Your task to perform on an android device: choose inbox layout in the gmail app Image 0: 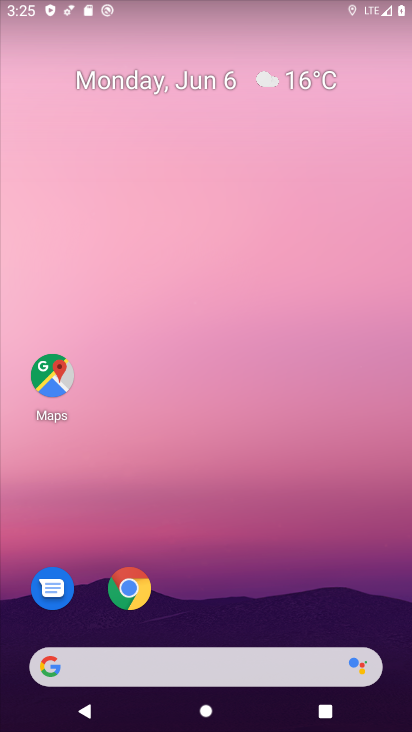
Step 0: click (137, 594)
Your task to perform on an android device: choose inbox layout in the gmail app Image 1: 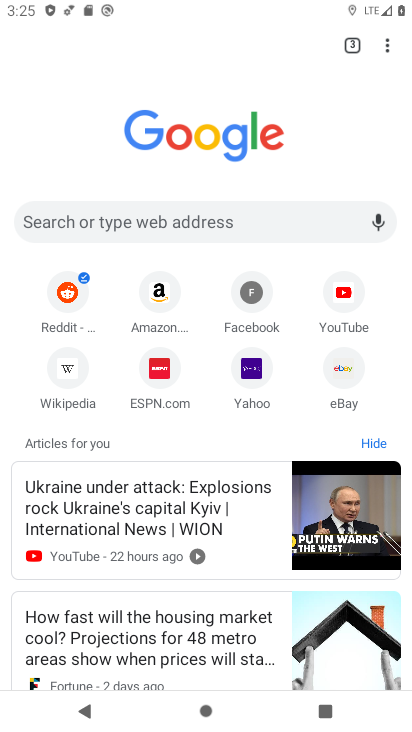
Step 1: press home button
Your task to perform on an android device: choose inbox layout in the gmail app Image 2: 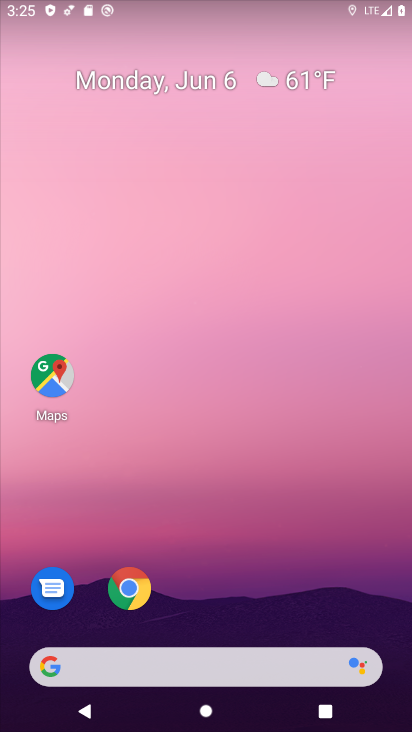
Step 2: drag from (185, 460) to (151, 321)
Your task to perform on an android device: choose inbox layout in the gmail app Image 3: 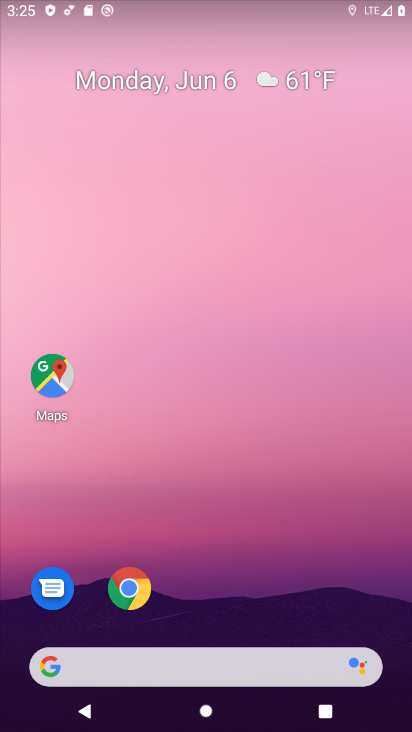
Step 3: drag from (252, 617) to (231, 126)
Your task to perform on an android device: choose inbox layout in the gmail app Image 4: 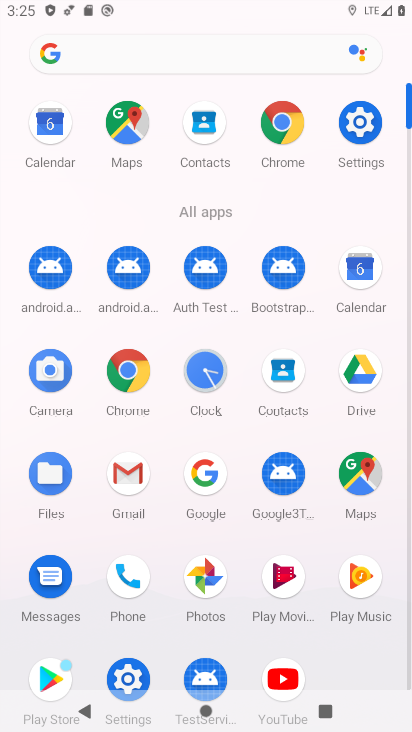
Step 4: click (137, 485)
Your task to perform on an android device: choose inbox layout in the gmail app Image 5: 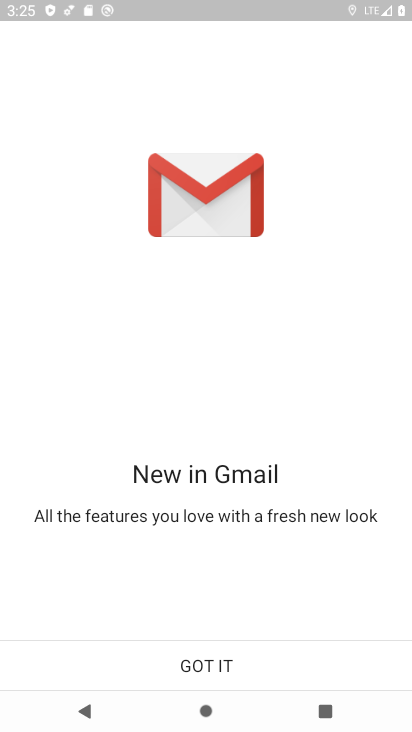
Step 5: click (218, 668)
Your task to perform on an android device: choose inbox layout in the gmail app Image 6: 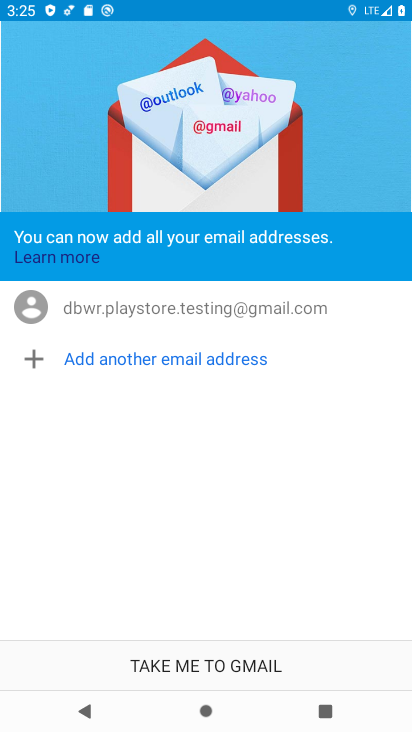
Step 6: click (218, 668)
Your task to perform on an android device: choose inbox layout in the gmail app Image 7: 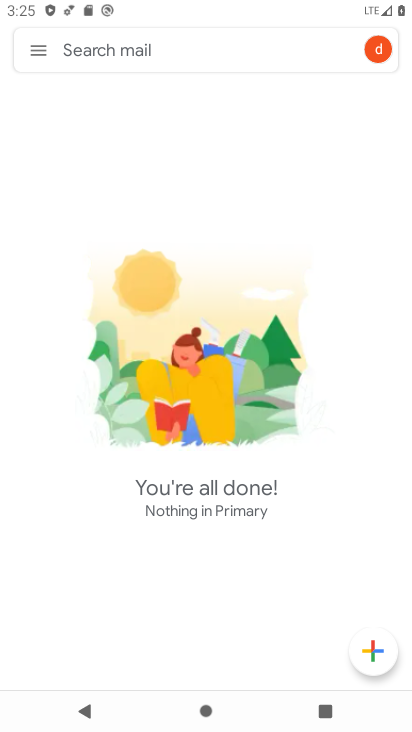
Step 7: click (37, 51)
Your task to perform on an android device: choose inbox layout in the gmail app Image 8: 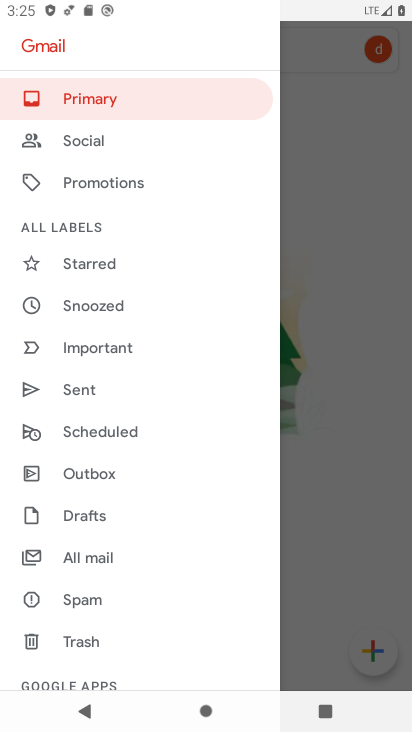
Step 8: drag from (102, 645) to (89, 327)
Your task to perform on an android device: choose inbox layout in the gmail app Image 9: 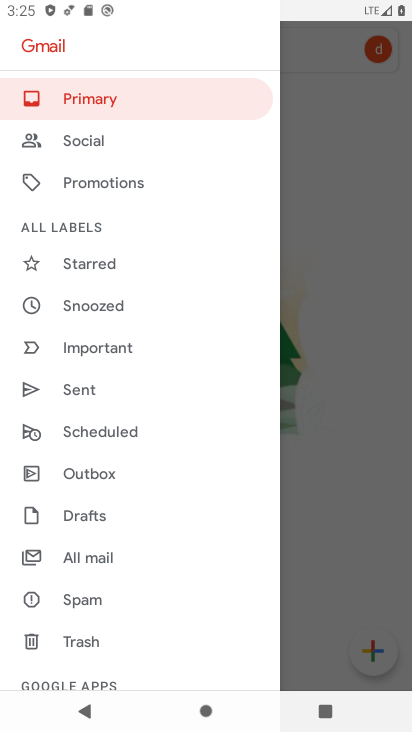
Step 9: drag from (101, 624) to (73, 306)
Your task to perform on an android device: choose inbox layout in the gmail app Image 10: 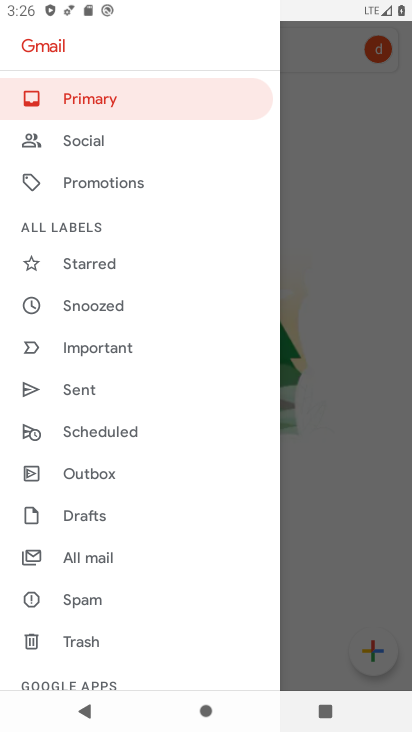
Step 10: drag from (96, 619) to (87, 221)
Your task to perform on an android device: choose inbox layout in the gmail app Image 11: 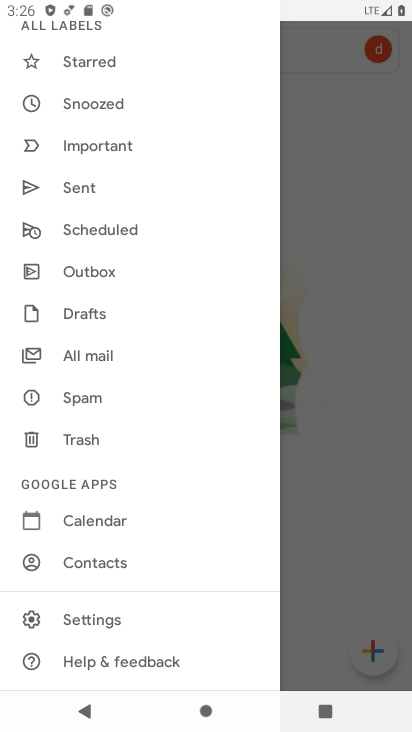
Step 11: click (110, 621)
Your task to perform on an android device: choose inbox layout in the gmail app Image 12: 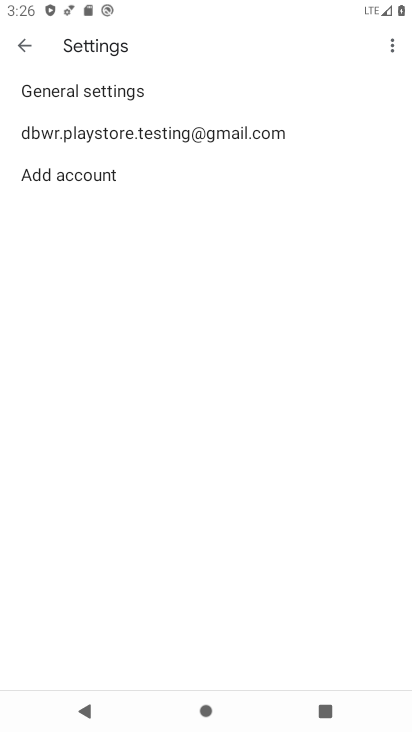
Step 12: click (193, 138)
Your task to perform on an android device: choose inbox layout in the gmail app Image 13: 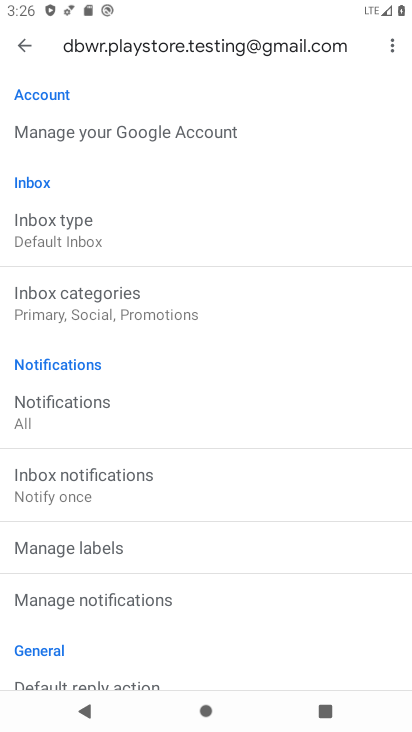
Step 13: click (131, 219)
Your task to perform on an android device: choose inbox layout in the gmail app Image 14: 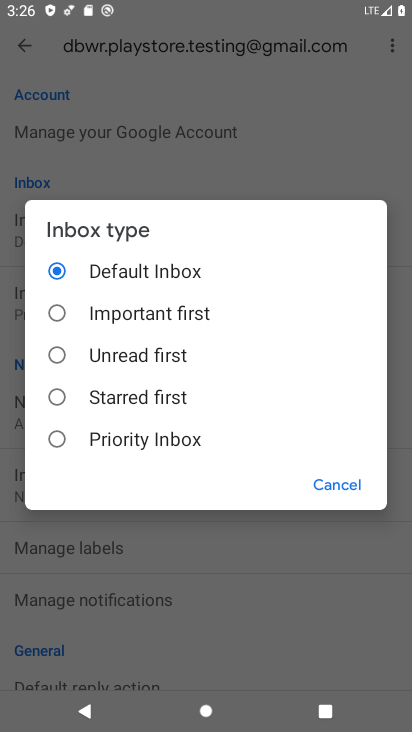
Step 14: click (153, 357)
Your task to perform on an android device: choose inbox layout in the gmail app Image 15: 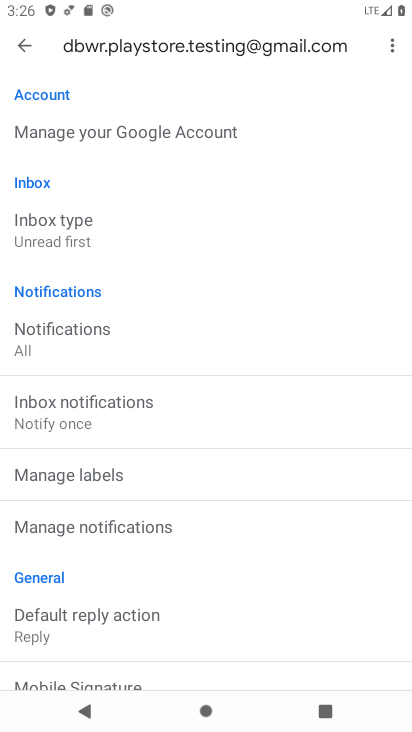
Step 15: task complete